Your task to perform on an android device: turn on showing notifications on the lock screen Image 0: 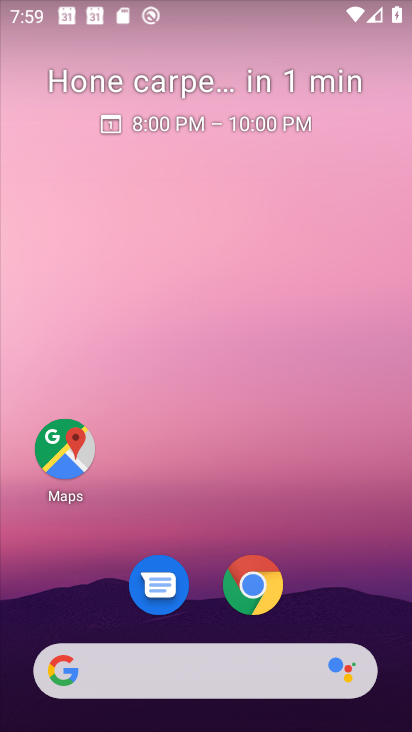
Step 0: drag from (344, 591) to (293, 89)
Your task to perform on an android device: turn on showing notifications on the lock screen Image 1: 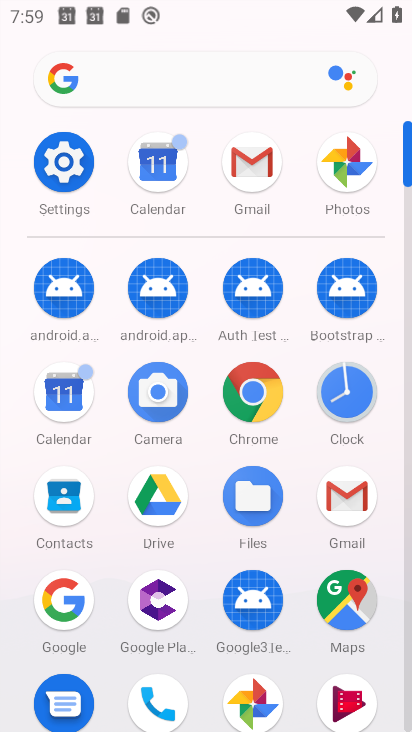
Step 1: click (58, 160)
Your task to perform on an android device: turn on showing notifications on the lock screen Image 2: 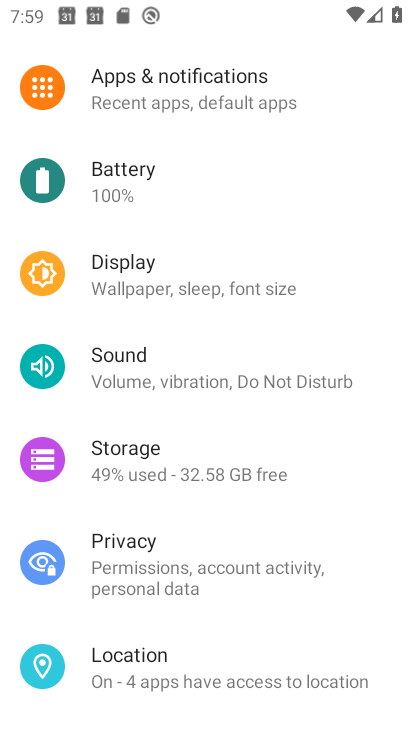
Step 2: click (194, 99)
Your task to perform on an android device: turn on showing notifications on the lock screen Image 3: 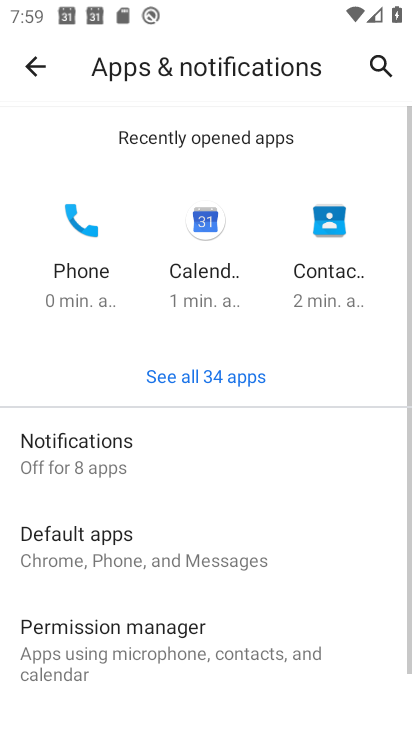
Step 3: click (97, 435)
Your task to perform on an android device: turn on showing notifications on the lock screen Image 4: 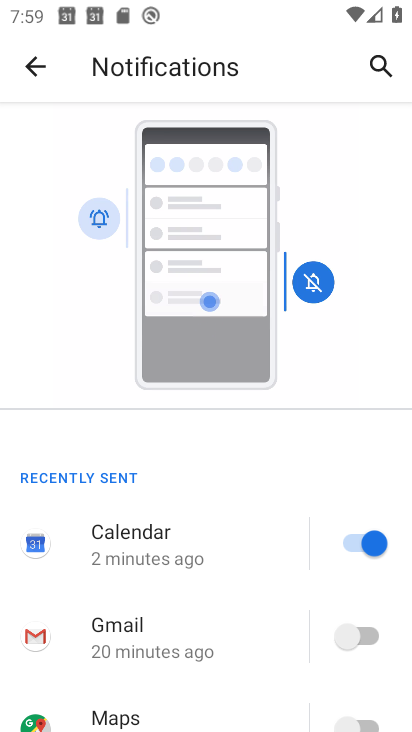
Step 4: task complete